Your task to perform on an android device: Add bose soundsport free to the cart on newegg.com Image 0: 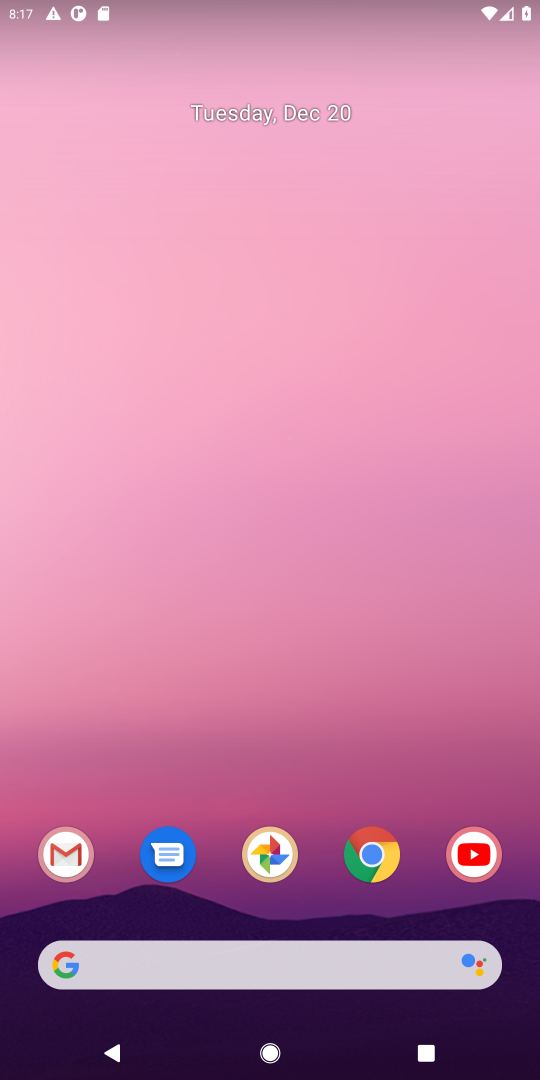
Step 0: click (367, 862)
Your task to perform on an android device: Add bose soundsport free to the cart on newegg.com Image 1: 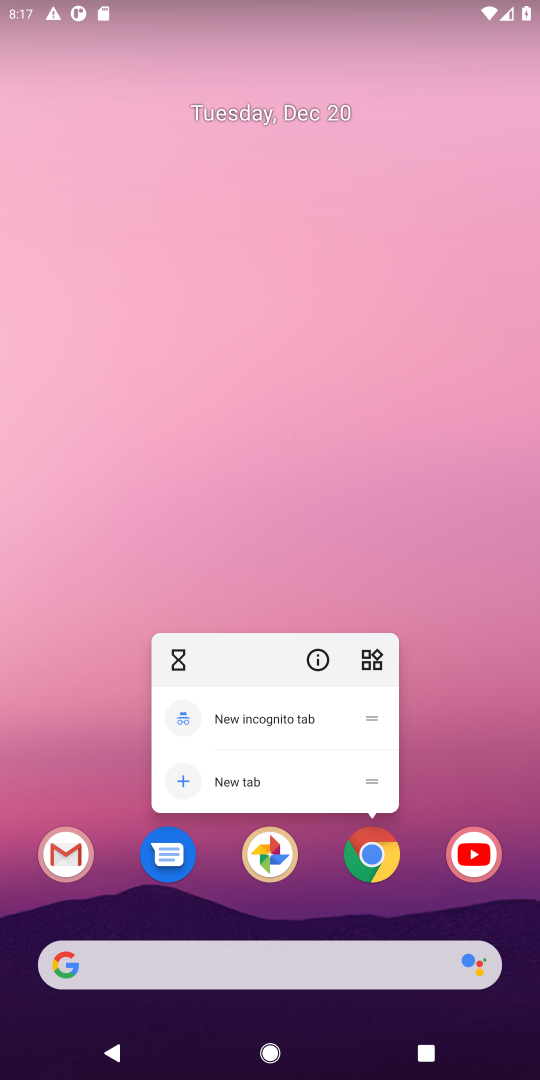
Step 1: click (381, 861)
Your task to perform on an android device: Add bose soundsport free to the cart on newegg.com Image 2: 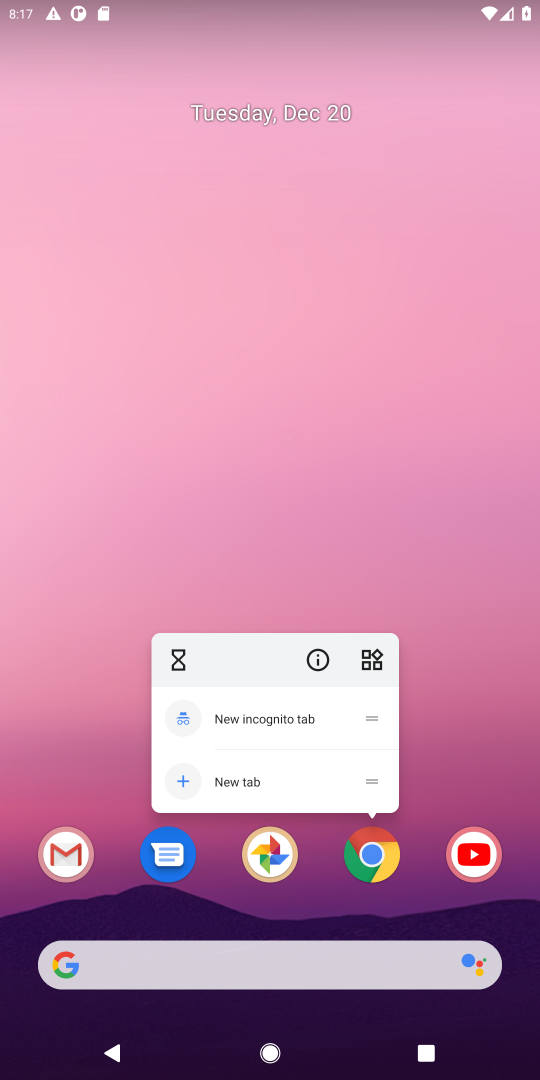
Step 2: click (382, 862)
Your task to perform on an android device: Add bose soundsport free to the cart on newegg.com Image 3: 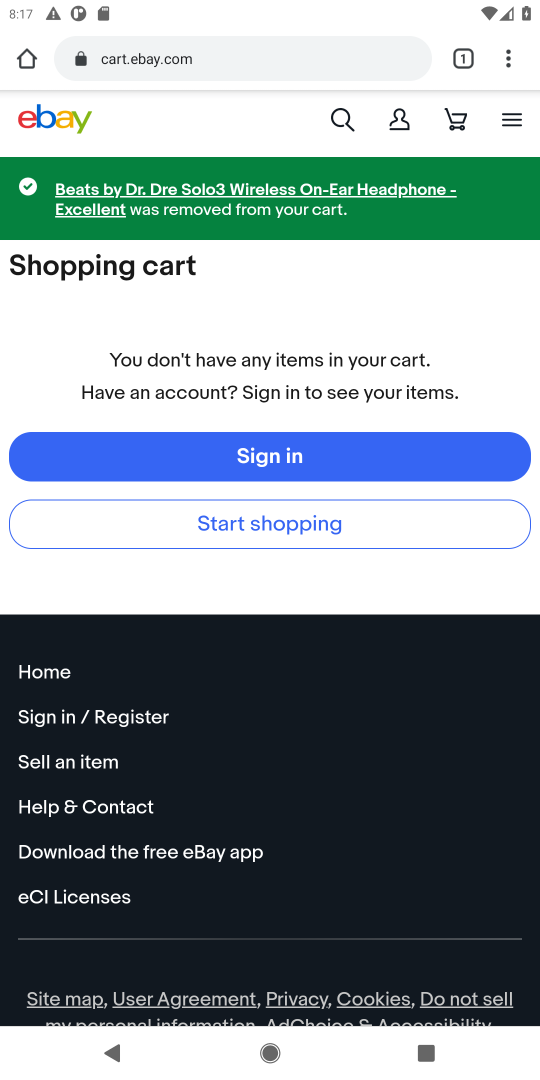
Step 3: click (147, 64)
Your task to perform on an android device: Add bose soundsport free to the cart on newegg.com Image 4: 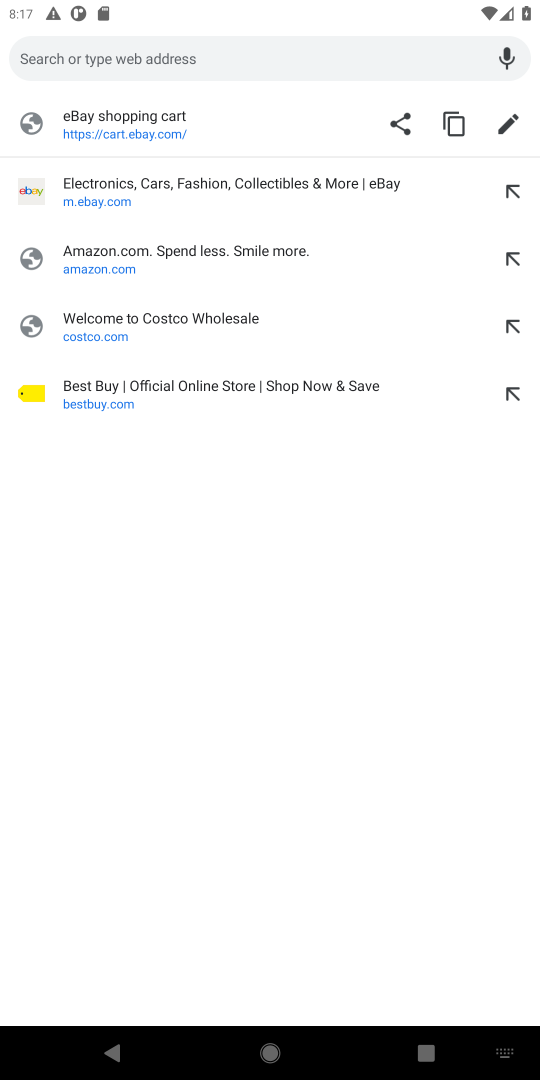
Step 4: type "newegg.com"
Your task to perform on an android device: Add bose soundsport free to the cart on newegg.com Image 5: 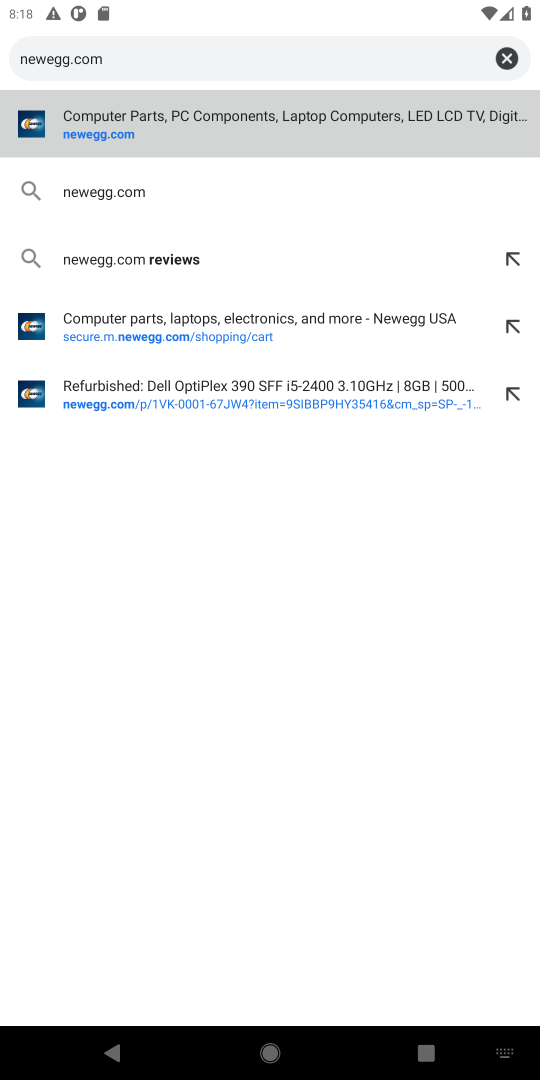
Step 5: click (83, 138)
Your task to perform on an android device: Add bose soundsport free to the cart on newegg.com Image 6: 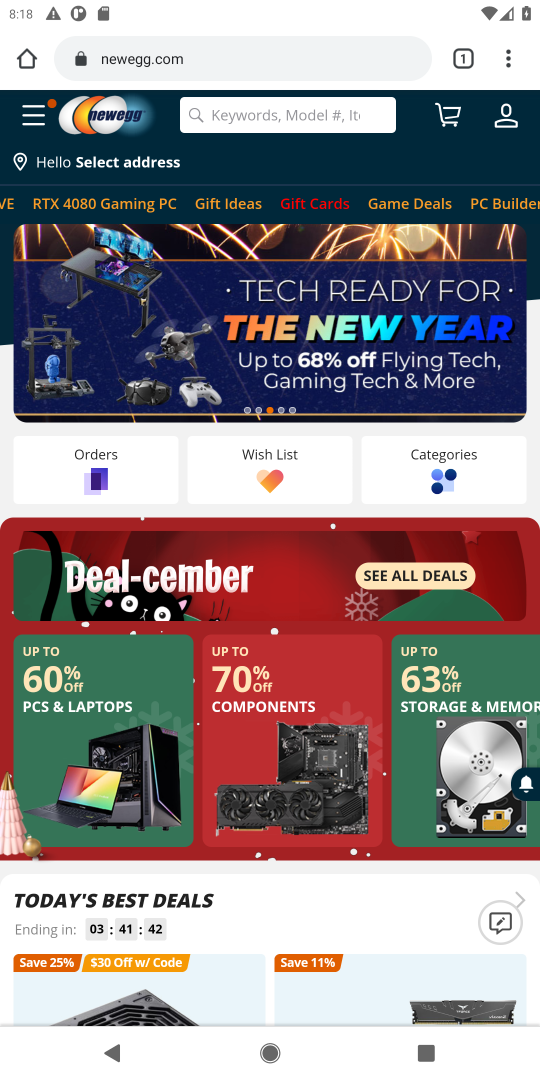
Step 6: click (288, 116)
Your task to perform on an android device: Add bose soundsport free to the cart on newegg.com Image 7: 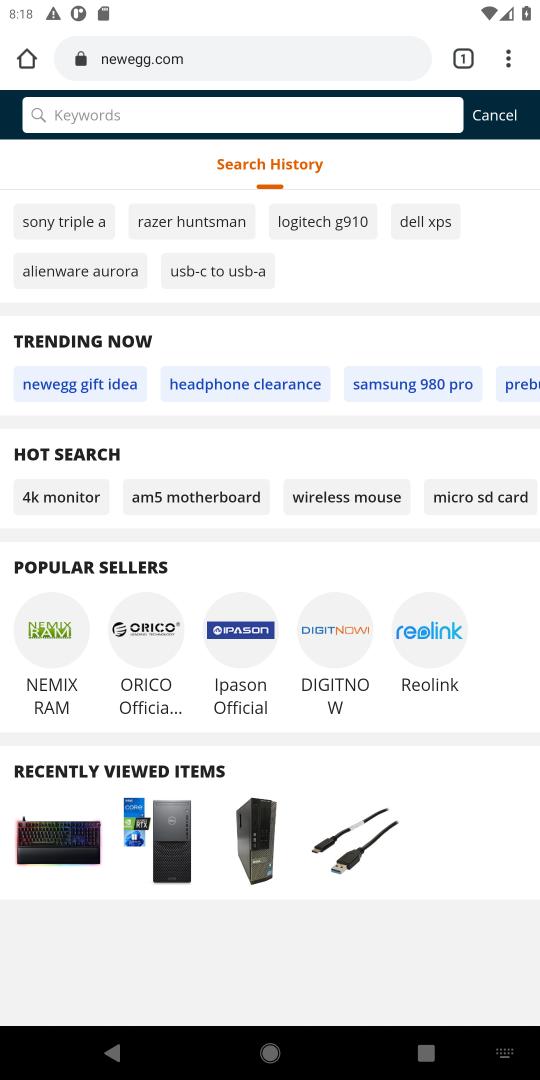
Step 7: type " bose soundsport free"
Your task to perform on an android device: Add bose soundsport free to the cart on newegg.com Image 8: 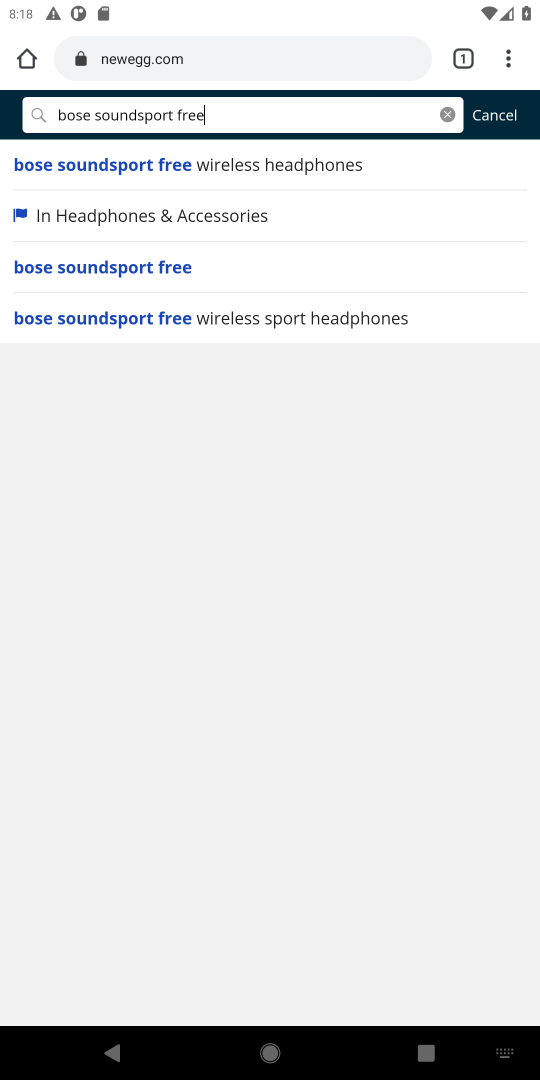
Step 8: click (87, 269)
Your task to perform on an android device: Add bose soundsport free to the cart on newegg.com Image 9: 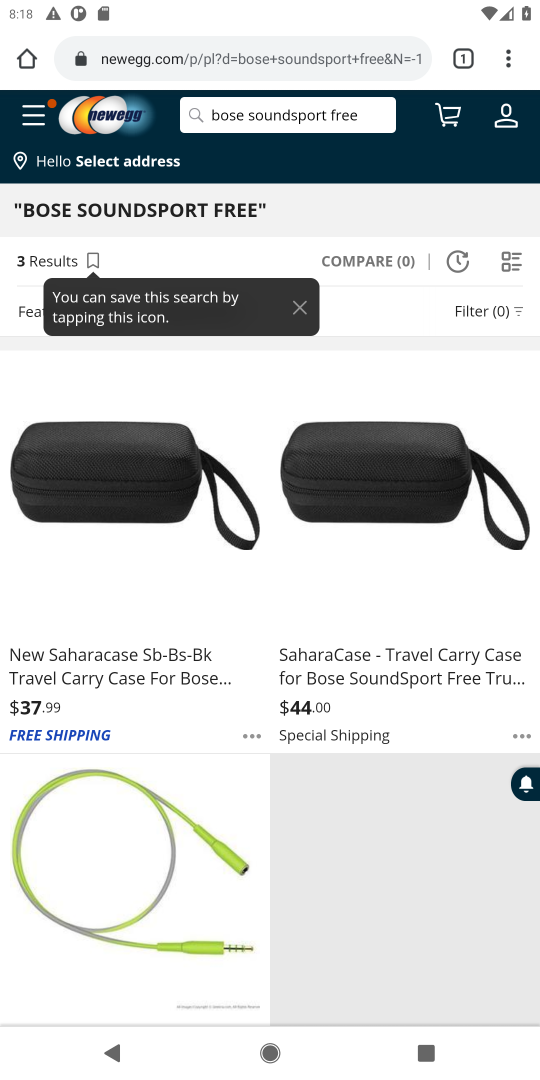
Step 9: click (410, 677)
Your task to perform on an android device: Add bose soundsport free to the cart on newegg.com Image 10: 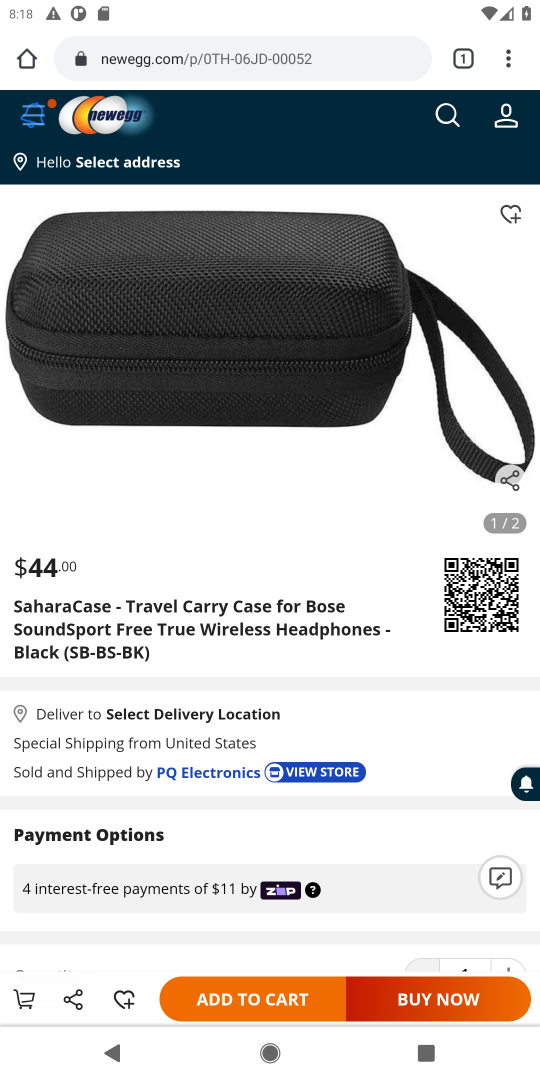
Step 10: click (236, 988)
Your task to perform on an android device: Add bose soundsport free to the cart on newegg.com Image 11: 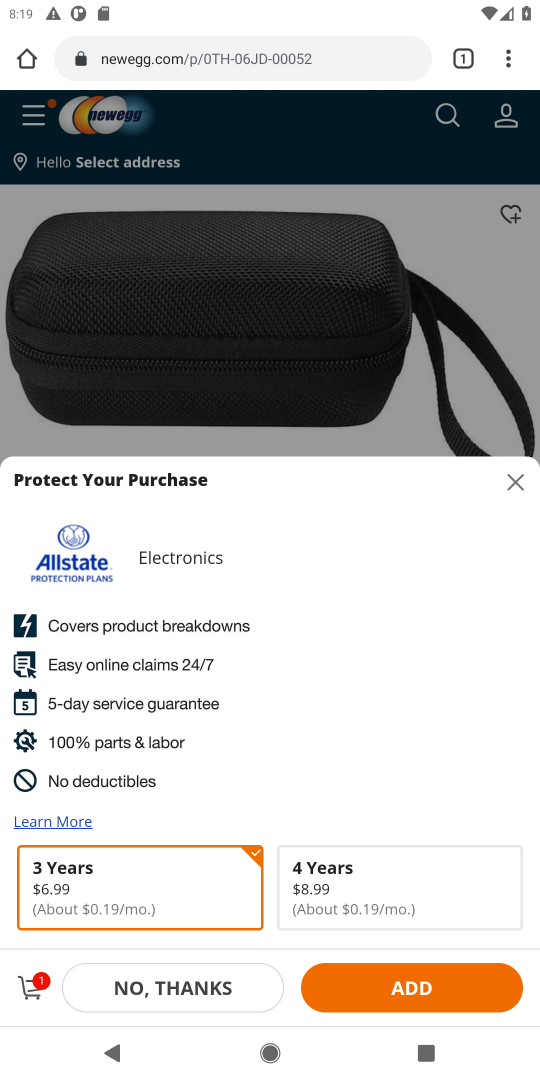
Step 11: task complete